Your task to perform on an android device: Is it going to rain today? Image 0: 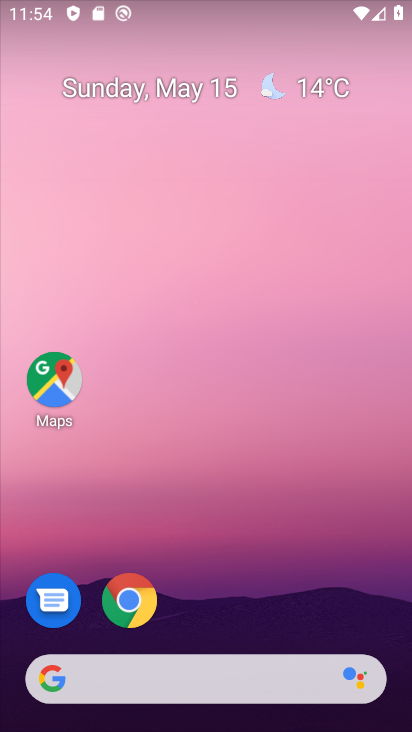
Step 0: drag from (299, 558) to (249, 18)
Your task to perform on an android device: Is it going to rain today? Image 1: 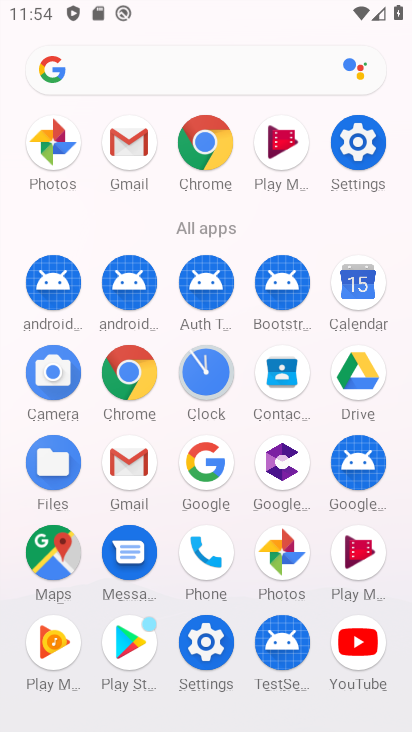
Step 1: drag from (3, 529) to (5, 277)
Your task to perform on an android device: Is it going to rain today? Image 2: 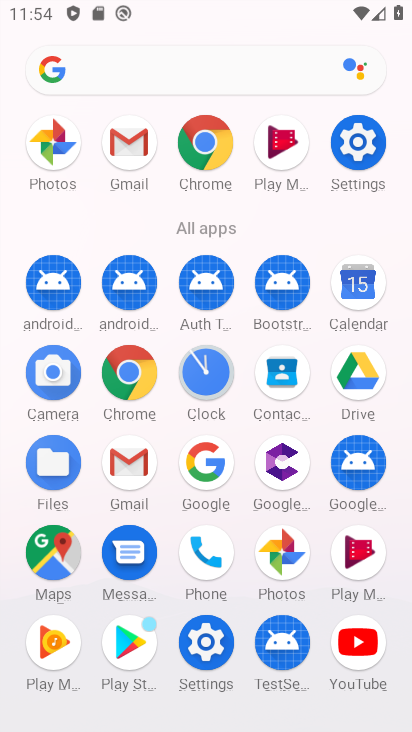
Step 2: click (120, 371)
Your task to perform on an android device: Is it going to rain today? Image 3: 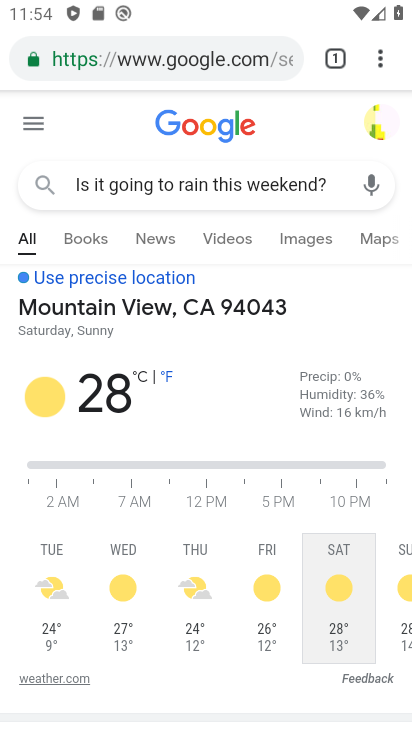
Step 3: click (163, 59)
Your task to perform on an android device: Is it going to rain today? Image 4: 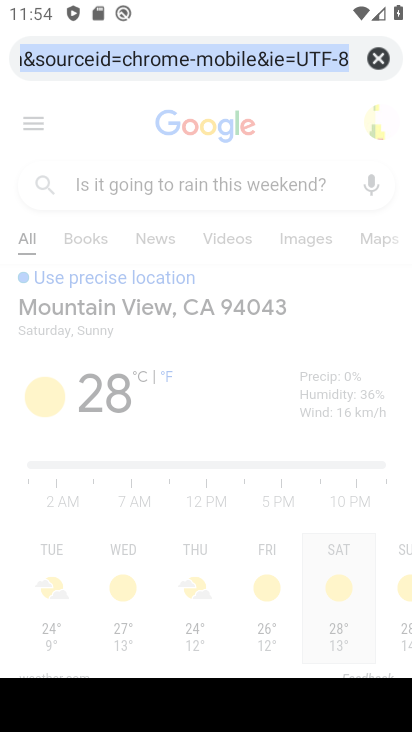
Step 4: click (381, 64)
Your task to perform on an android device: Is it going to rain today? Image 5: 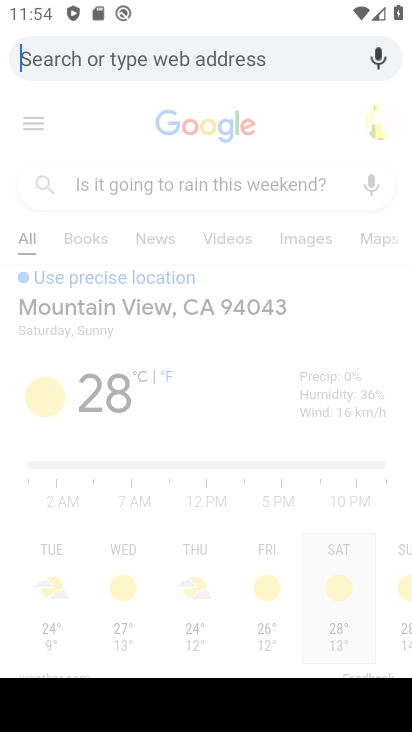
Step 5: type "Is it going to rain today"
Your task to perform on an android device: Is it going to rain today? Image 6: 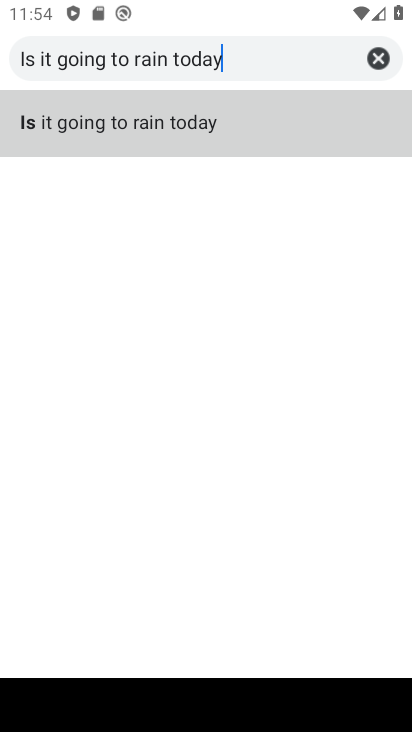
Step 6: click (136, 117)
Your task to perform on an android device: Is it going to rain today? Image 7: 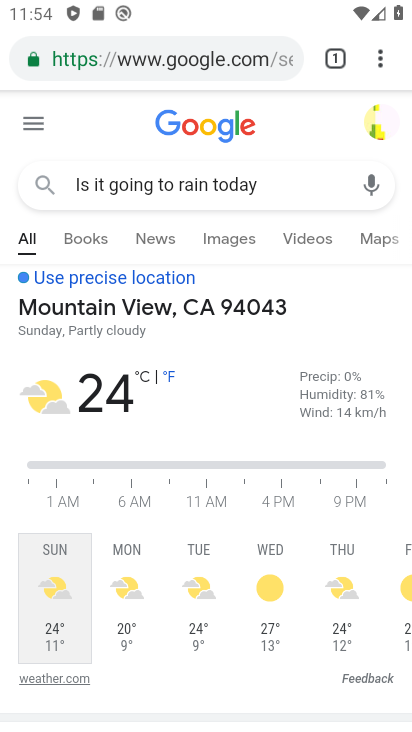
Step 7: task complete